Your task to perform on an android device: toggle notifications settings in the gmail app Image 0: 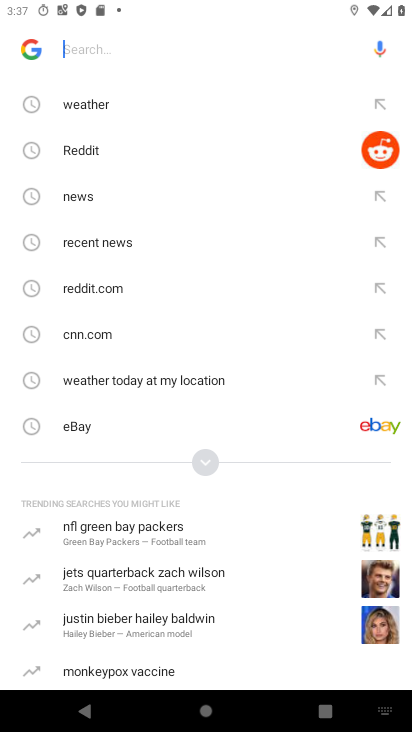
Step 0: press home button
Your task to perform on an android device: toggle notifications settings in the gmail app Image 1: 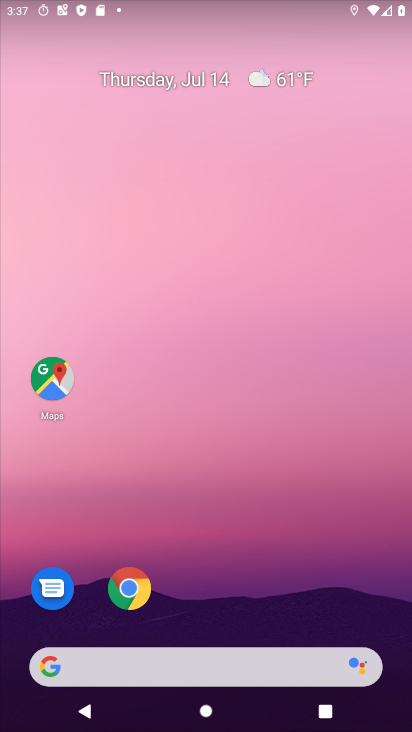
Step 1: drag from (197, 673) to (370, 93)
Your task to perform on an android device: toggle notifications settings in the gmail app Image 2: 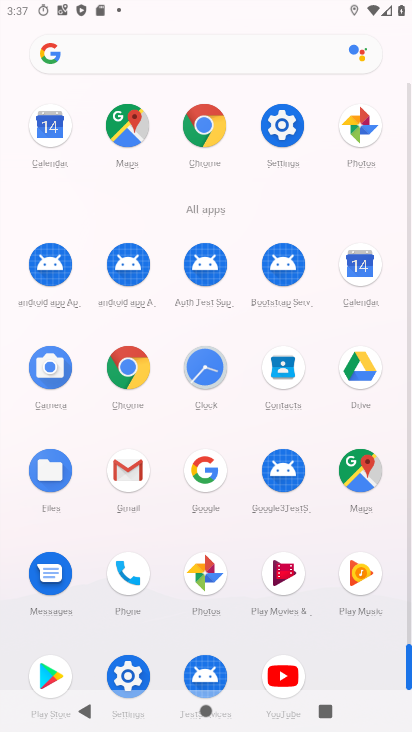
Step 2: click (128, 468)
Your task to perform on an android device: toggle notifications settings in the gmail app Image 3: 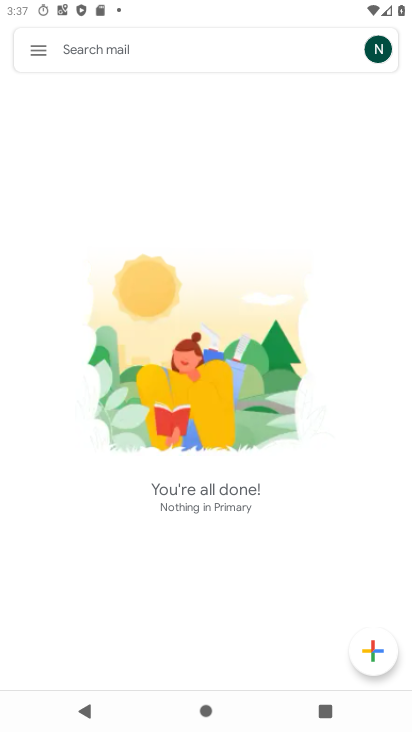
Step 3: click (41, 46)
Your task to perform on an android device: toggle notifications settings in the gmail app Image 4: 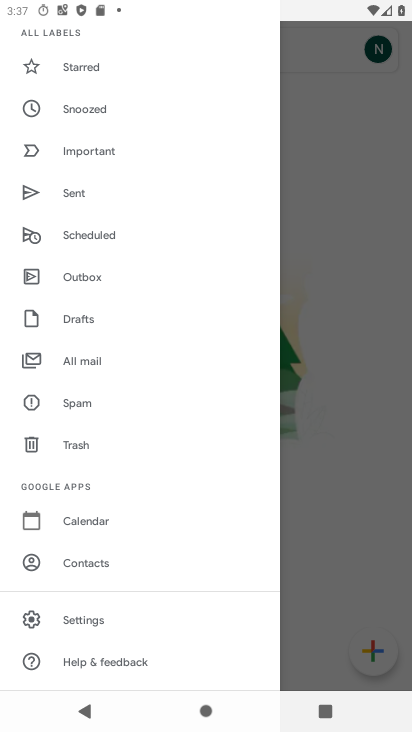
Step 4: click (88, 621)
Your task to perform on an android device: toggle notifications settings in the gmail app Image 5: 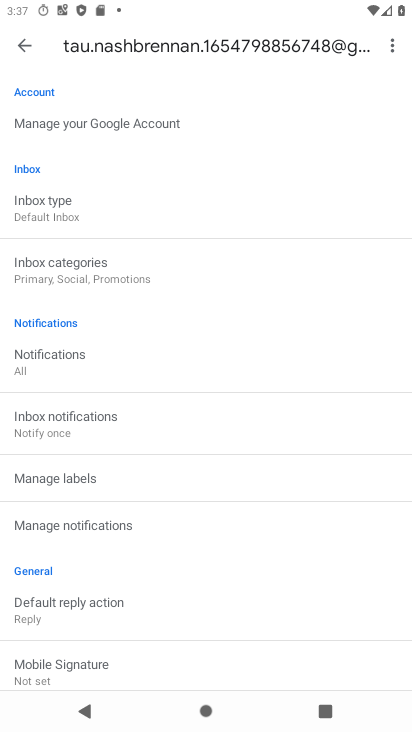
Step 5: click (59, 527)
Your task to perform on an android device: toggle notifications settings in the gmail app Image 6: 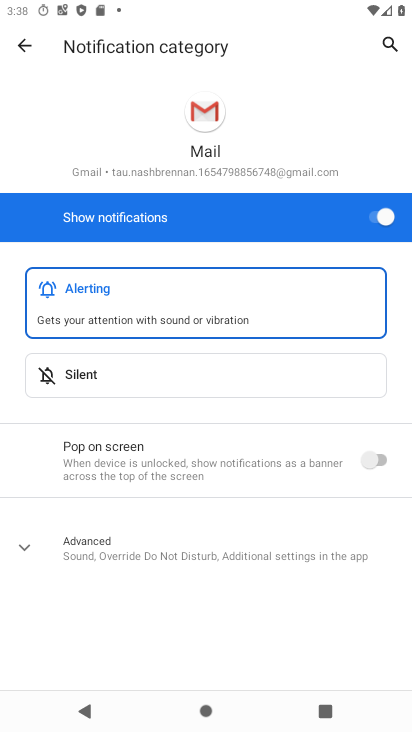
Step 6: click (380, 219)
Your task to perform on an android device: toggle notifications settings in the gmail app Image 7: 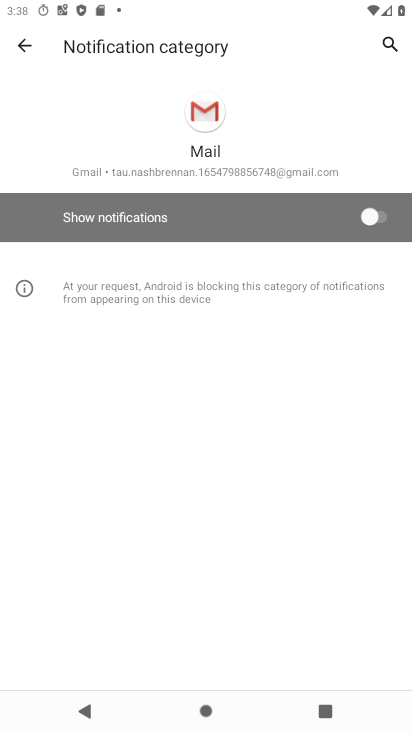
Step 7: task complete